Your task to perform on an android device: Go to sound settings Image 0: 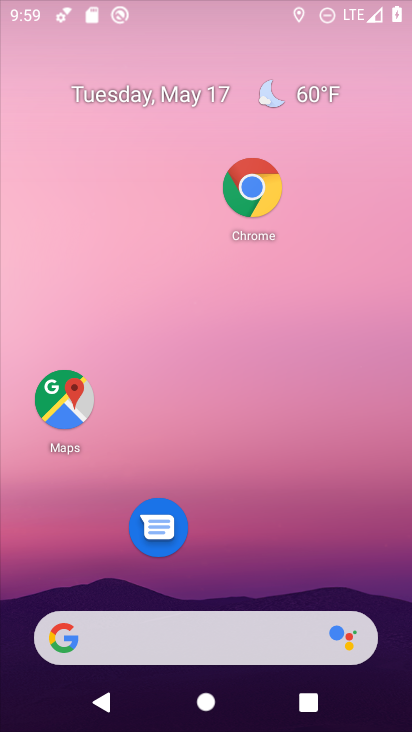
Step 0: drag from (278, 562) to (263, 104)
Your task to perform on an android device: Go to sound settings Image 1: 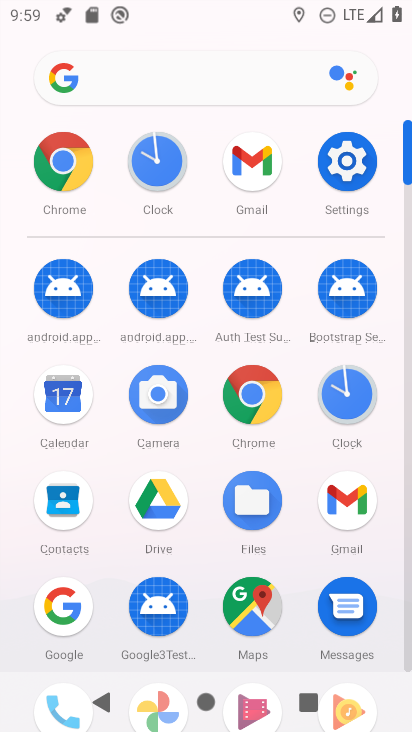
Step 1: click (325, 197)
Your task to perform on an android device: Go to sound settings Image 2: 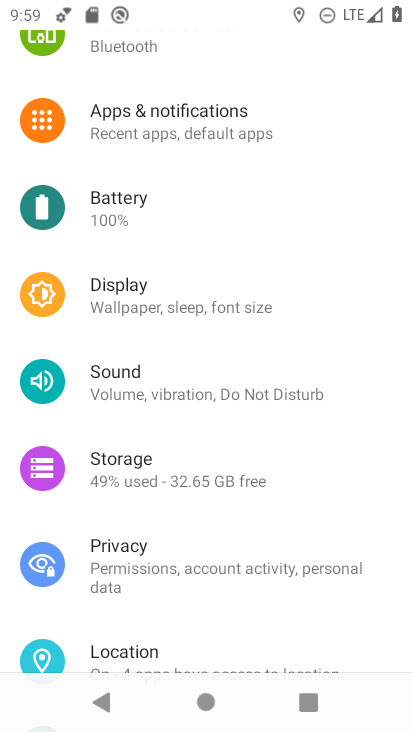
Step 2: click (239, 406)
Your task to perform on an android device: Go to sound settings Image 3: 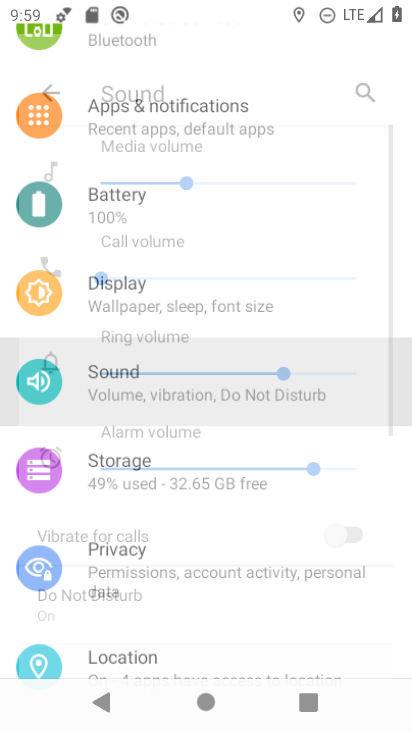
Step 3: task complete